Your task to perform on an android device: set an alarm Image 0: 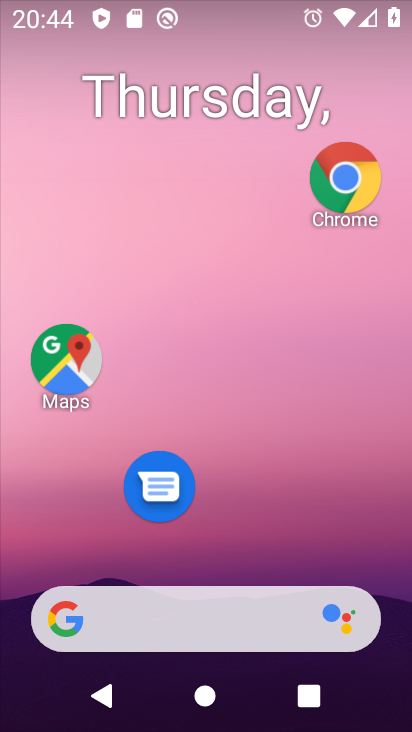
Step 0: drag from (233, 561) to (137, 48)
Your task to perform on an android device: set an alarm Image 1: 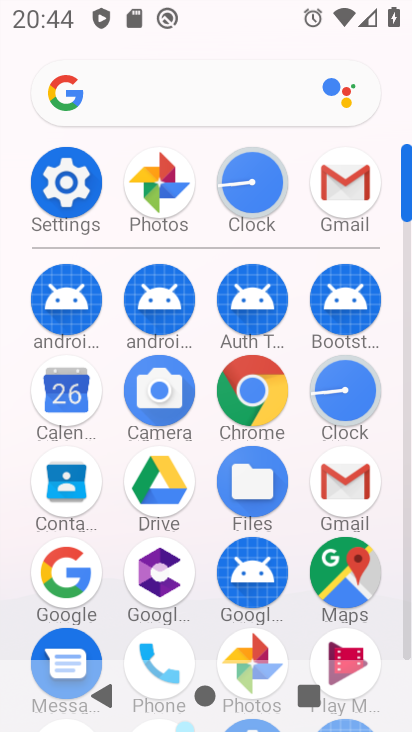
Step 1: click (260, 181)
Your task to perform on an android device: set an alarm Image 2: 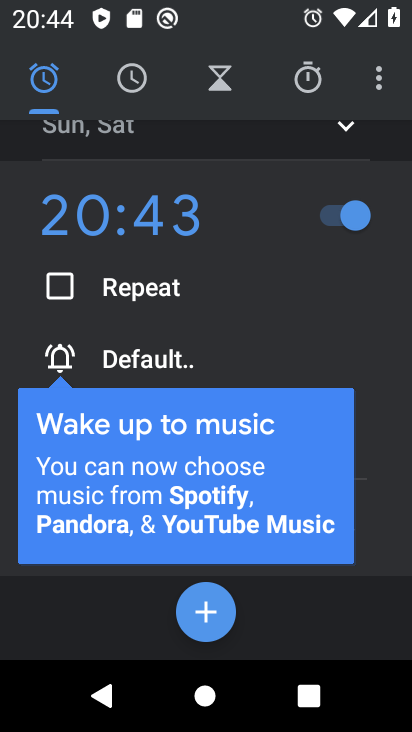
Step 2: click (202, 611)
Your task to perform on an android device: set an alarm Image 3: 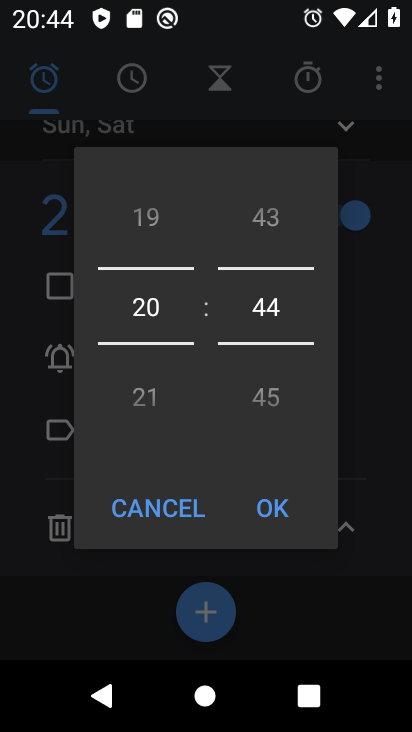
Step 3: click (272, 532)
Your task to perform on an android device: set an alarm Image 4: 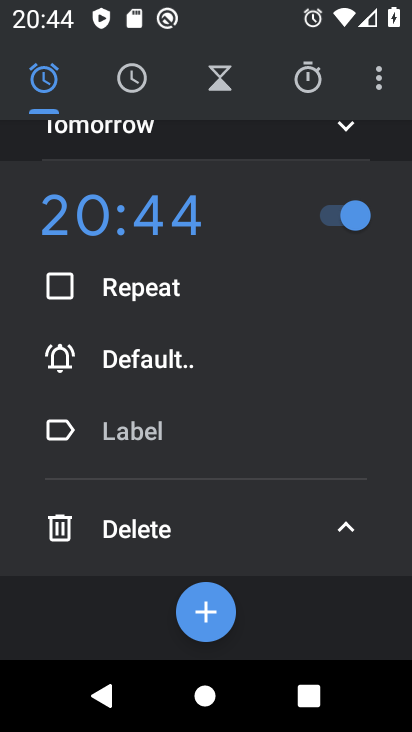
Step 4: task complete